Your task to perform on an android device: Go to Google Image 0: 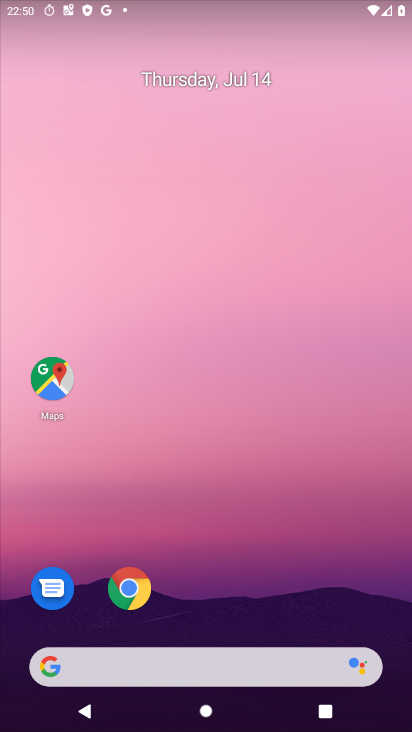
Step 0: drag from (217, 603) to (188, 94)
Your task to perform on an android device: Go to Google Image 1: 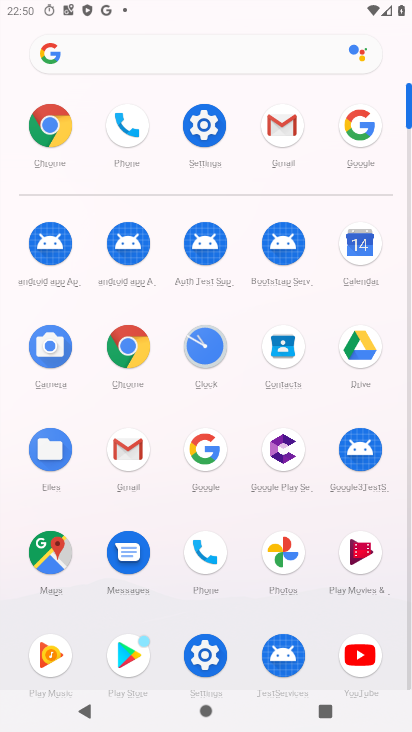
Step 1: click (209, 455)
Your task to perform on an android device: Go to Google Image 2: 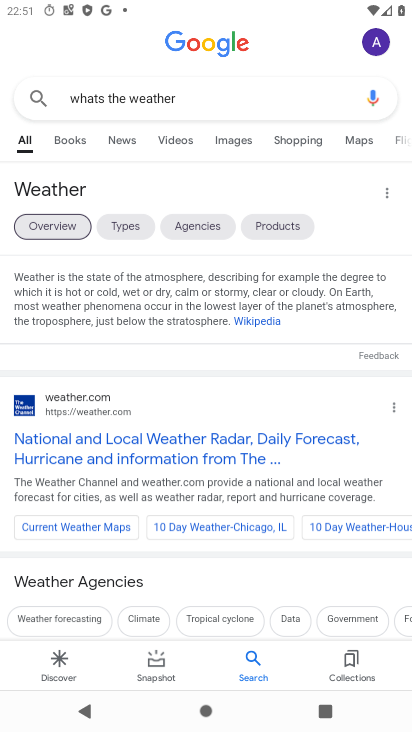
Step 2: task complete